Your task to perform on an android device: turn off location history Image 0: 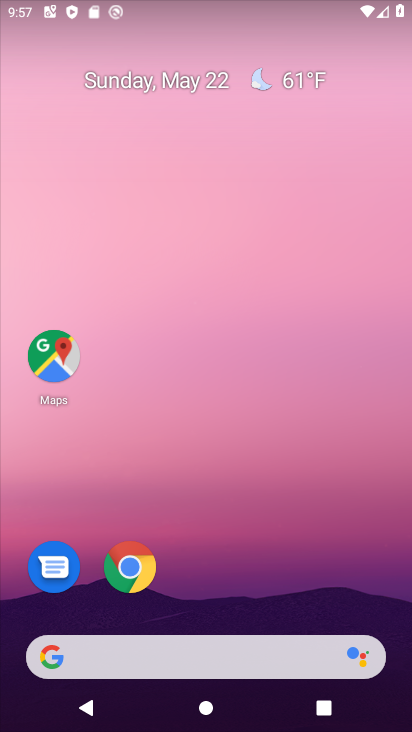
Step 0: drag from (230, 611) to (152, 100)
Your task to perform on an android device: turn off location history Image 1: 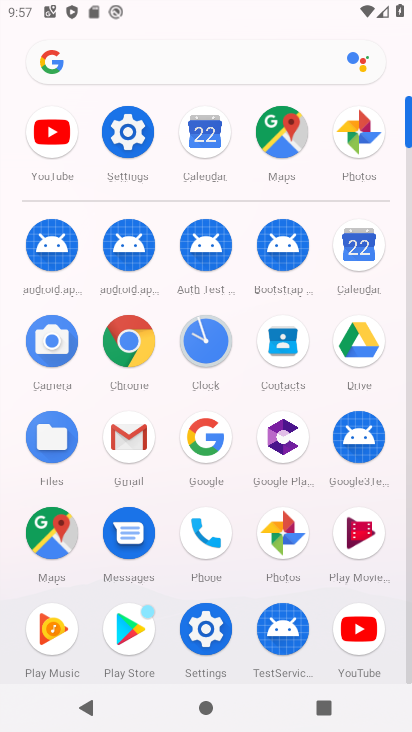
Step 1: click (117, 139)
Your task to perform on an android device: turn off location history Image 2: 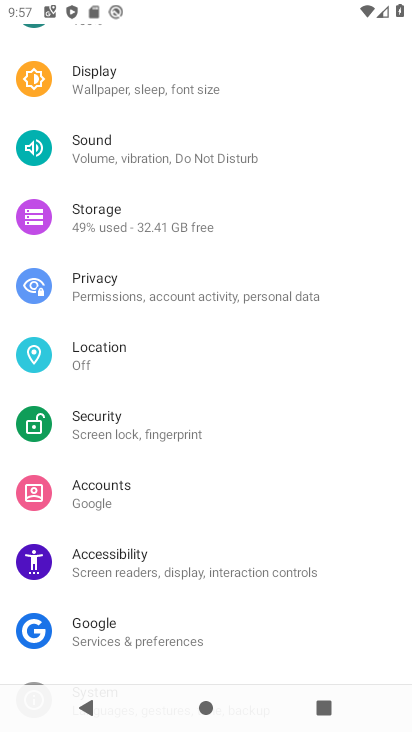
Step 2: click (105, 356)
Your task to perform on an android device: turn off location history Image 3: 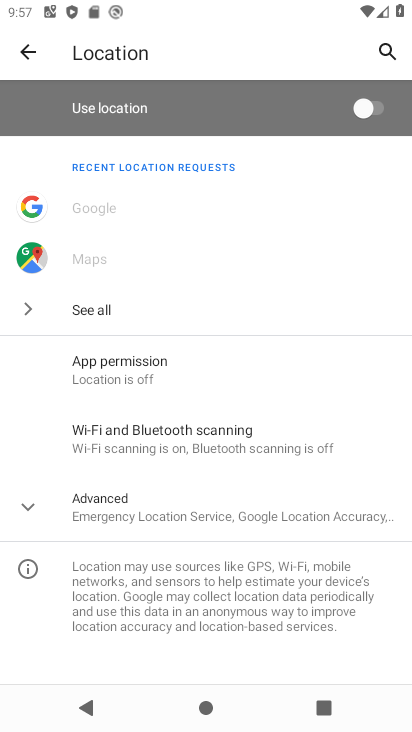
Step 3: click (163, 499)
Your task to perform on an android device: turn off location history Image 4: 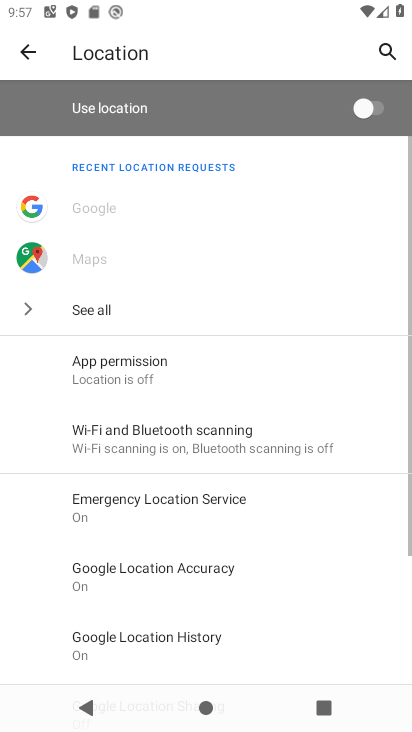
Step 4: drag from (191, 555) to (156, 402)
Your task to perform on an android device: turn off location history Image 5: 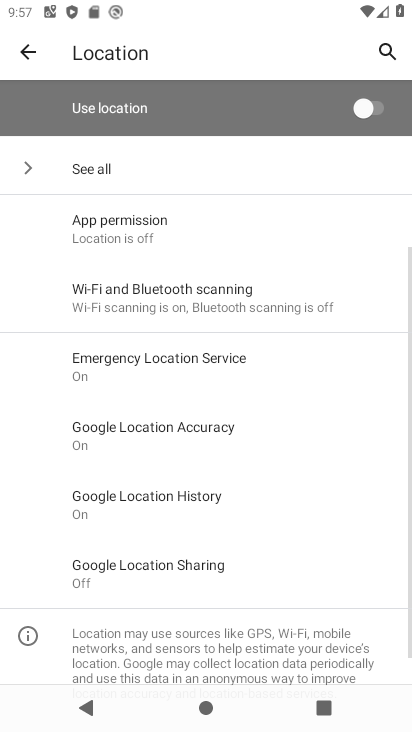
Step 5: click (153, 464)
Your task to perform on an android device: turn off location history Image 6: 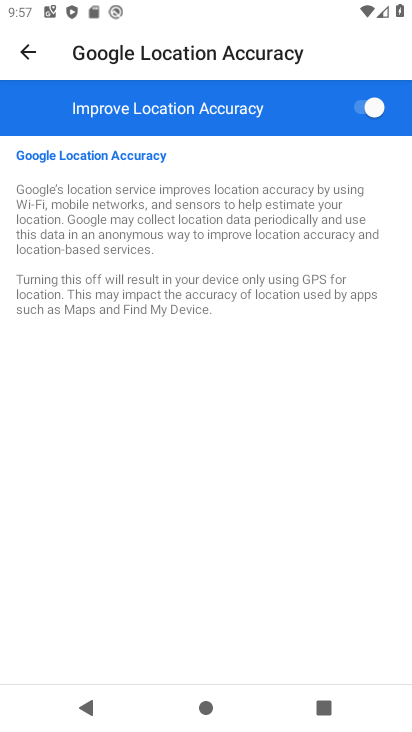
Step 6: click (26, 53)
Your task to perform on an android device: turn off location history Image 7: 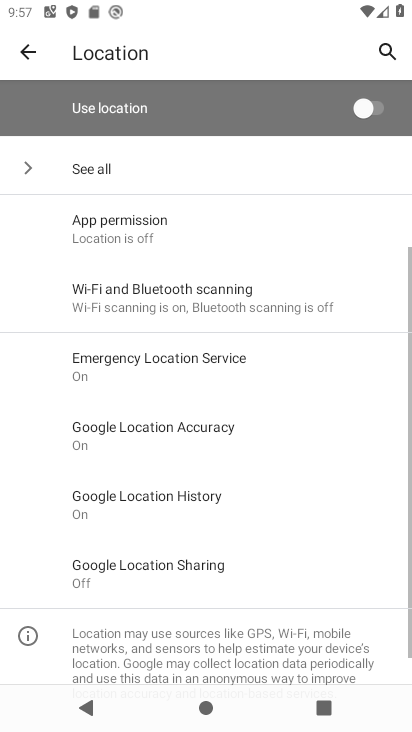
Step 7: click (181, 489)
Your task to perform on an android device: turn off location history Image 8: 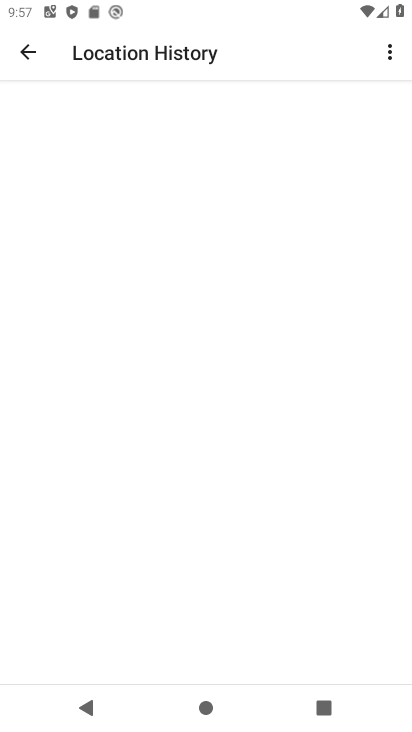
Step 8: drag from (199, 504) to (193, 219)
Your task to perform on an android device: turn off location history Image 9: 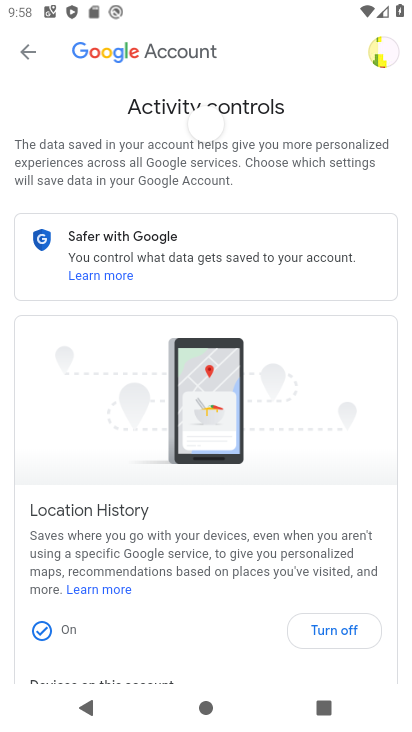
Step 9: drag from (283, 501) to (232, 226)
Your task to perform on an android device: turn off location history Image 10: 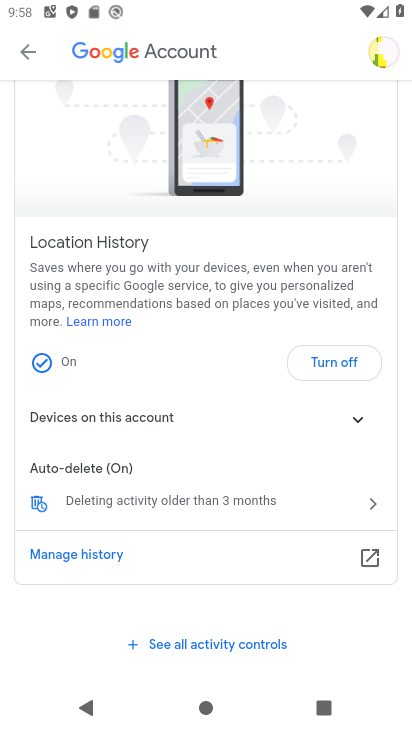
Step 10: click (330, 366)
Your task to perform on an android device: turn off location history Image 11: 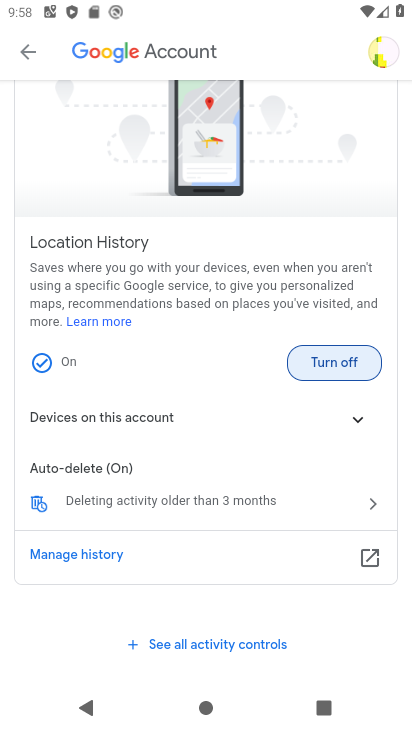
Step 11: click (318, 359)
Your task to perform on an android device: turn off location history Image 12: 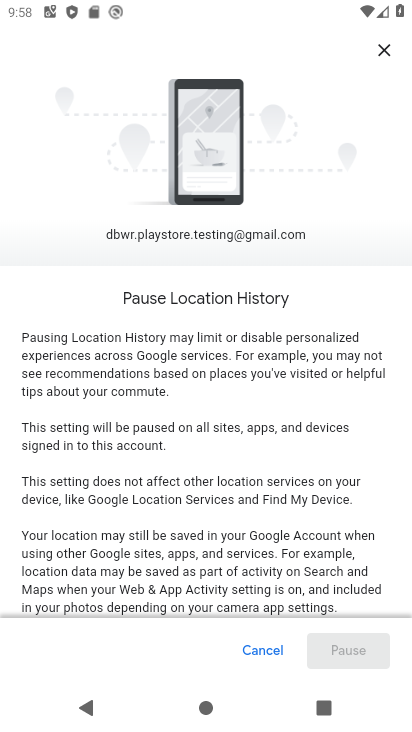
Step 12: drag from (321, 592) to (251, 31)
Your task to perform on an android device: turn off location history Image 13: 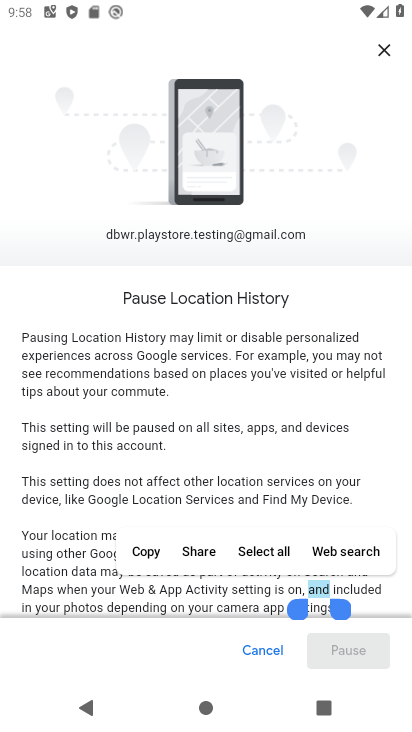
Step 13: drag from (292, 449) to (248, 4)
Your task to perform on an android device: turn off location history Image 14: 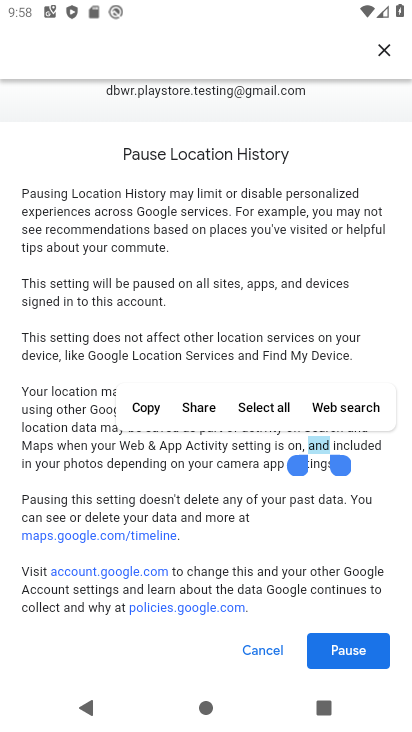
Step 14: click (342, 640)
Your task to perform on an android device: turn off location history Image 15: 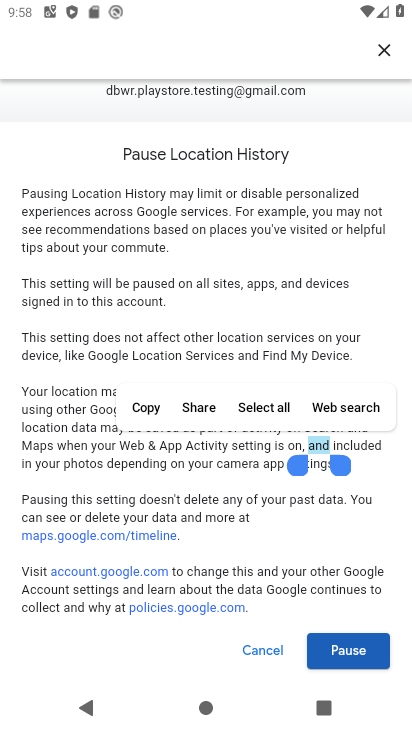
Step 15: click (382, 636)
Your task to perform on an android device: turn off location history Image 16: 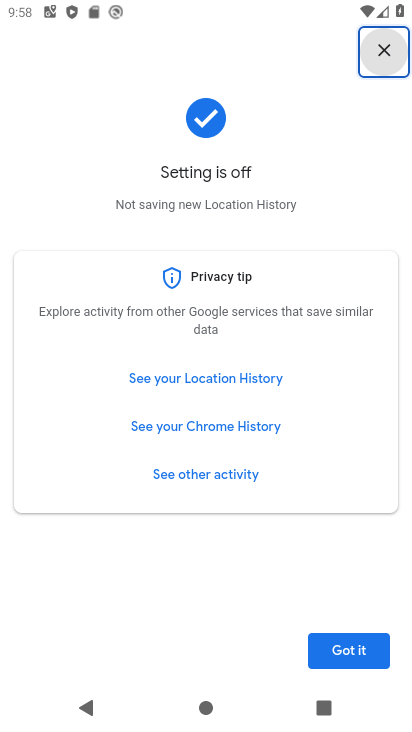
Step 16: click (356, 659)
Your task to perform on an android device: turn off location history Image 17: 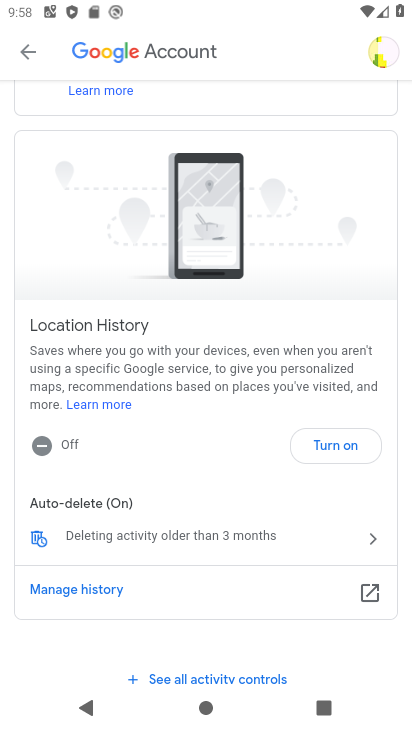
Step 17: task complete